Your task to perform on an android device: Open battery settings Image 0: 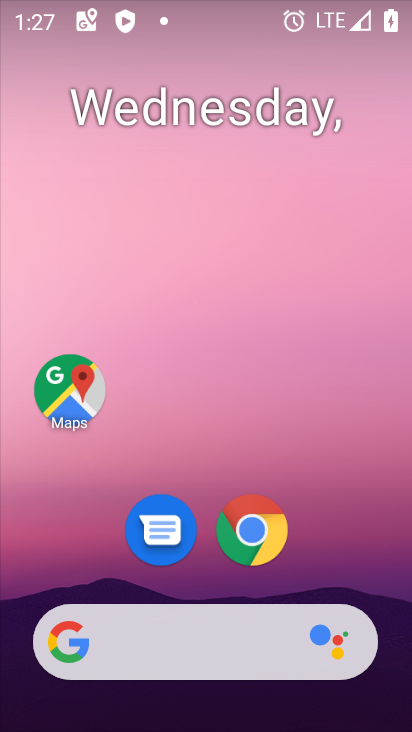
Step 0: drag from (339, 575) to (345, 281)
Your task to perform on an android device: Open battery settings Image 1: 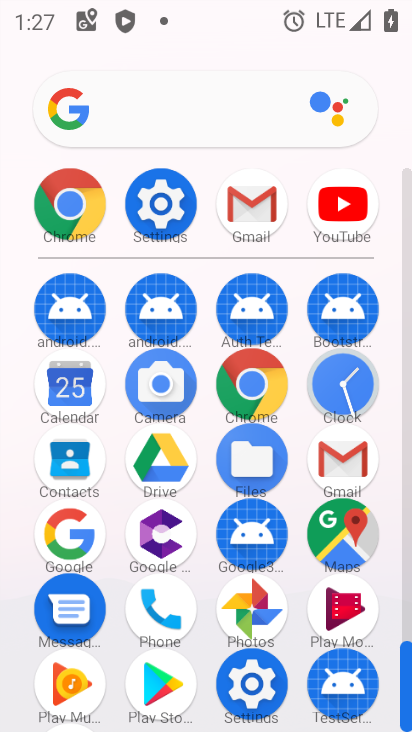
Step 1: click (247, 696)
Your task to perform on an android device: Open battery settings Image 2: 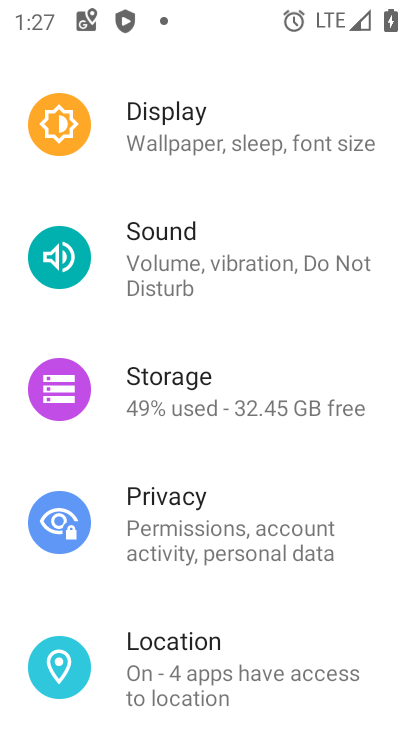
Step 2: drag from (230, 196) to (240, 523)
Your task to perform on an android device: Open battery settings Image 3: 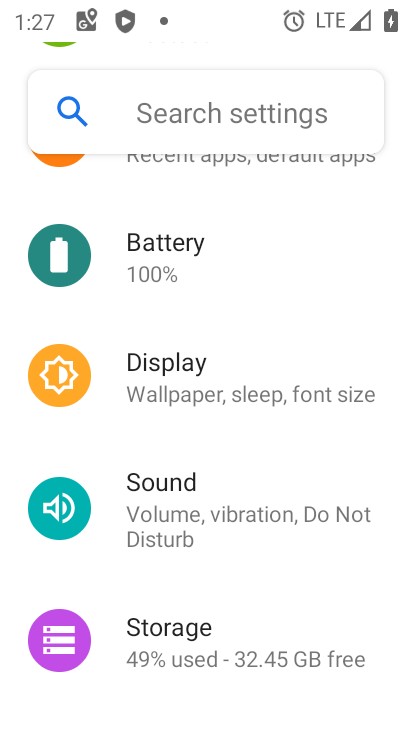
Step 3: click (255, 242)
Your task to perform on an android device: Open battery settings Image 4: 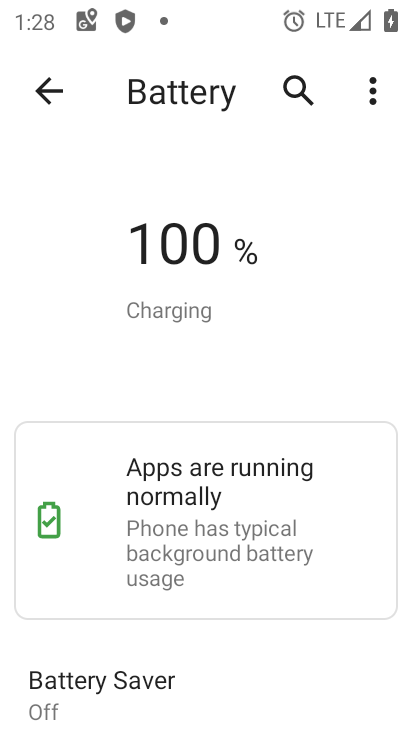
Step 4: task complete